Your task to perform on an android device: Show me popular games on the Play Store Image 0: 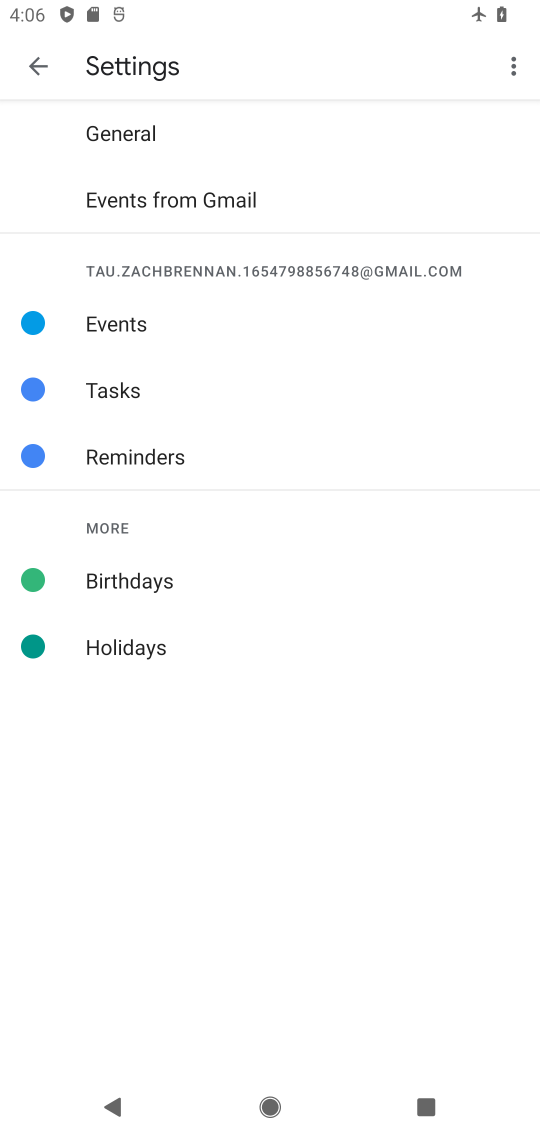
Step 0: press home button
Your task to perform on an android device: Show me popular games on the Play Store Image 1: 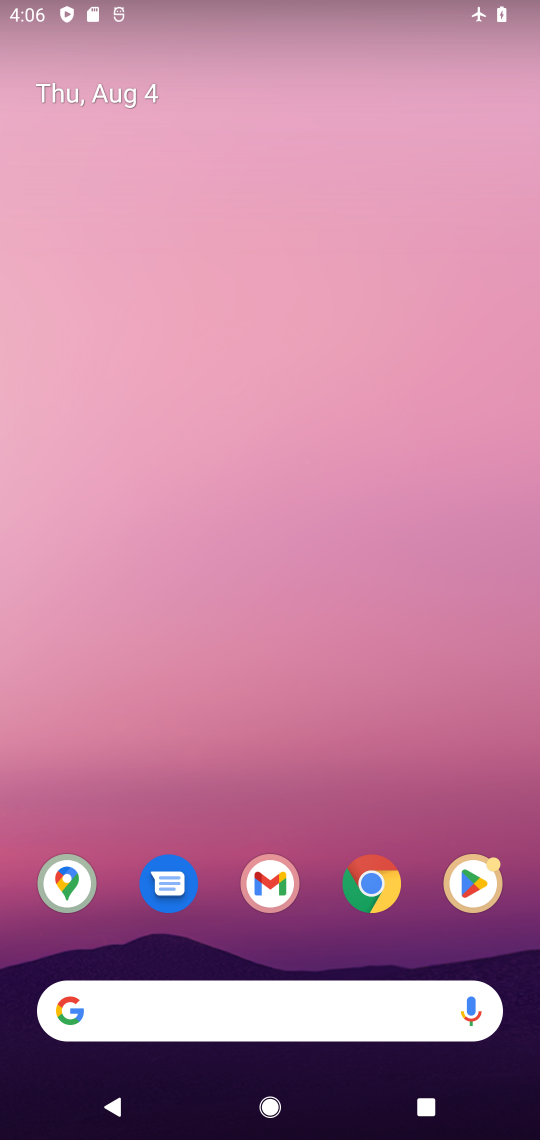
Step 1: drag from (391, 748) to (211, 131)
Your task to perform on an android device: Show me popular games on the Play Store Image 2: 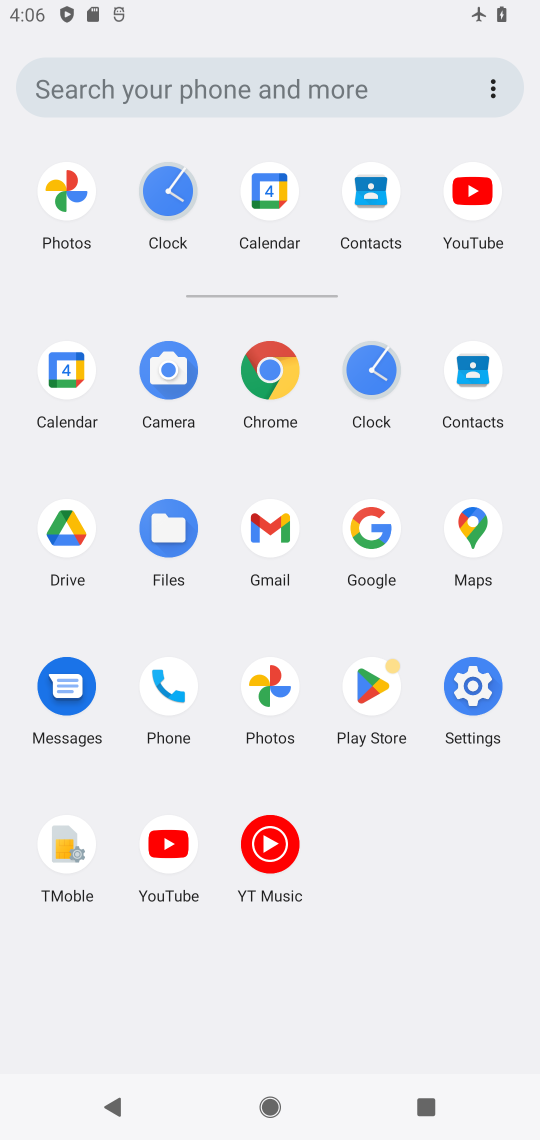
Step 2: click (371, 690)
Your task to perform on an android device: Show me popular games on the Play Store Image 3: 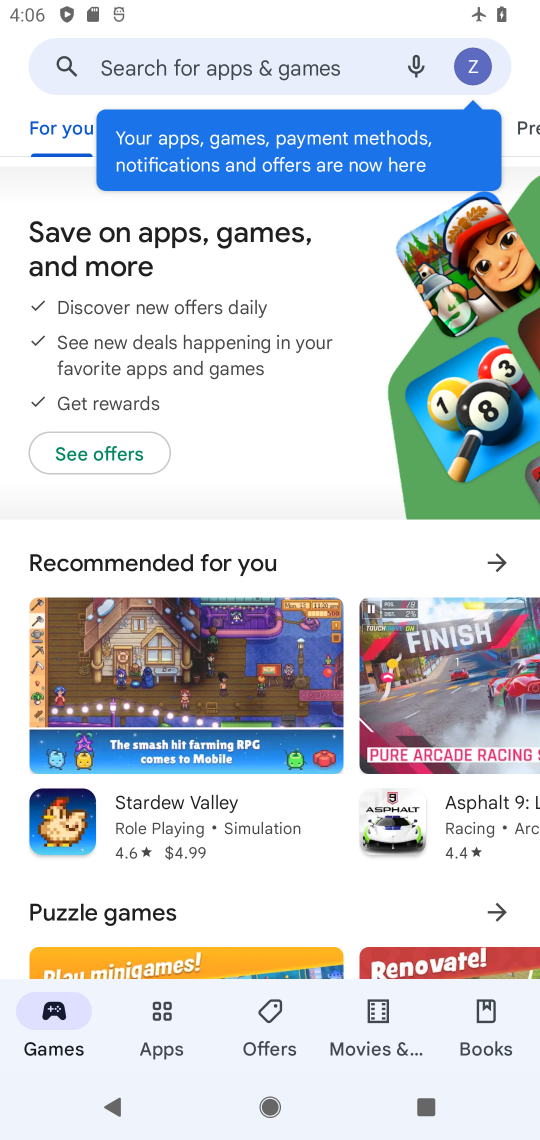
Step 3: task complete